Your task to perform on an android device: Go to notification settings Image 0: 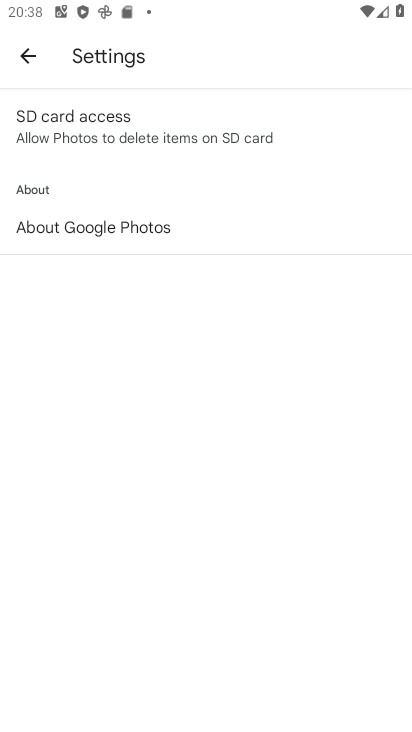
Step 0: press home button
Your task to perform on an android device: Go to notification settings Image 1: 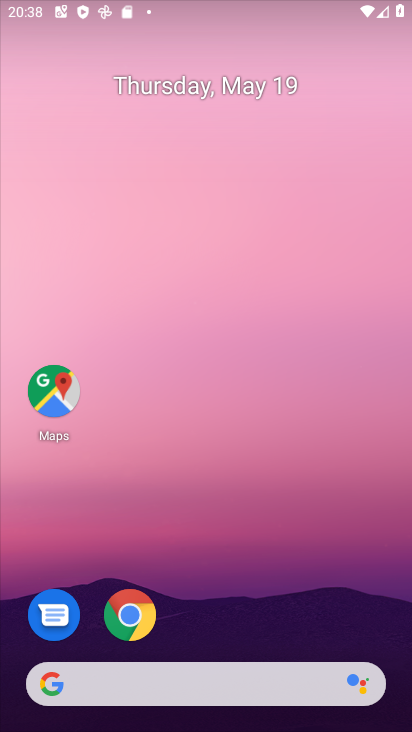
Step 1: drag from (261, 578) to (237, 73)
Your task to perform on an android device: Go to notification settings Image 2: 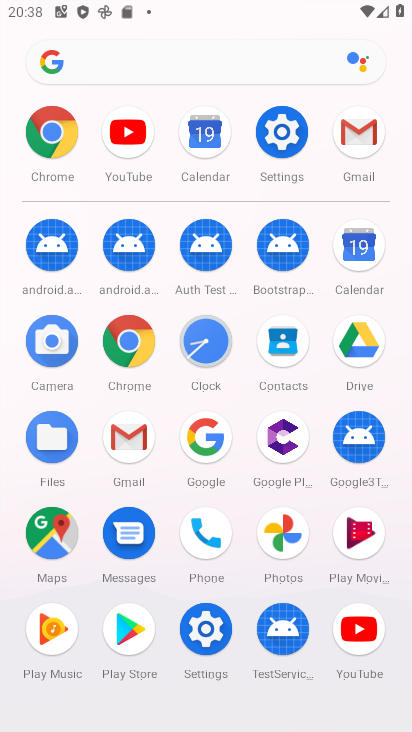
Step 2: click (282, 130)
Your task to perform on an android device: Go to notification settings Image 3: 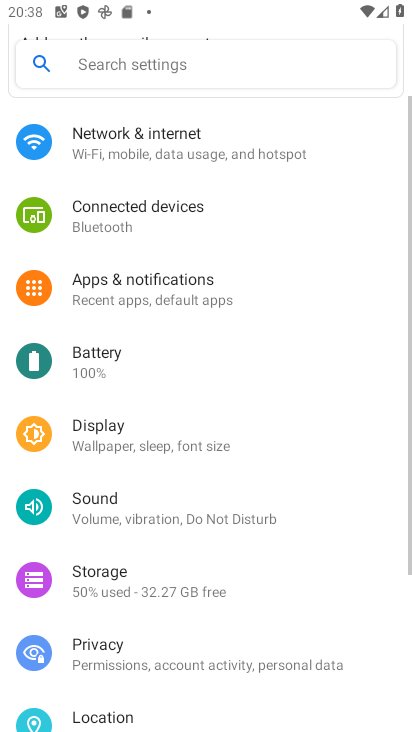
Step 3: click (186, 289)
Your task to perform on an android device: Go to notification settings Image 4: 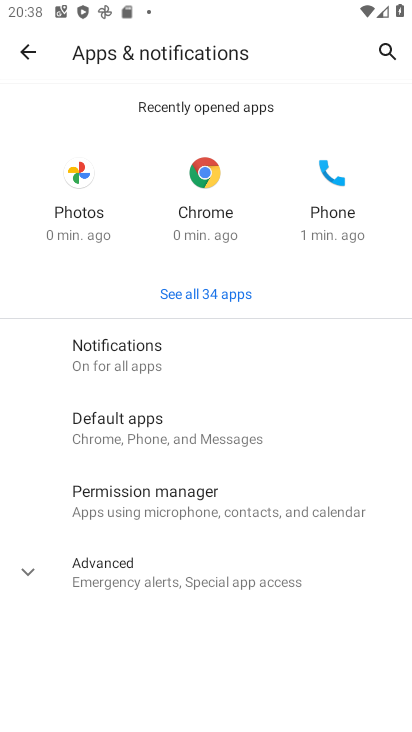
Step 4: click (153, 355)
Your task to perform on an android device: Go to notification settings Image 5: 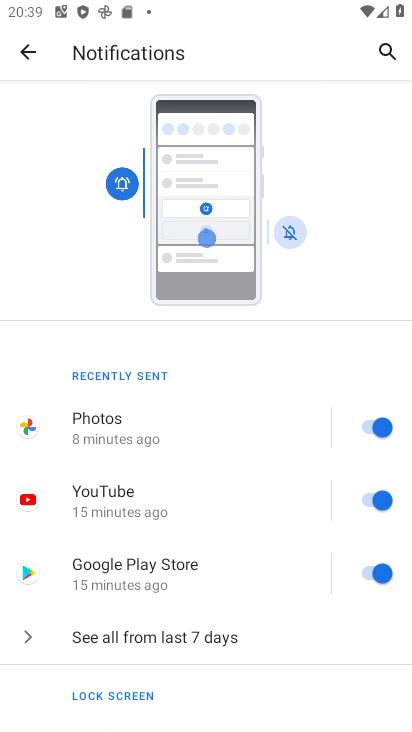
Step 5: task complete